Your task to perform on an android device: Open network settings Image 0: 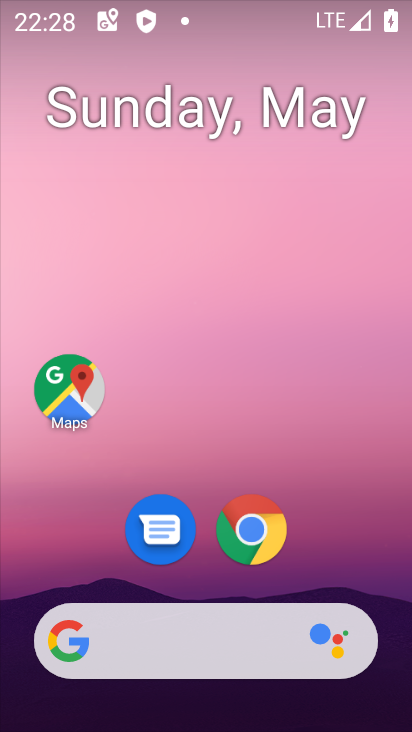
Step 0: drag from (341, 552) to (282, 161)
Your task to perform on an android device: Open network settings Image 1: 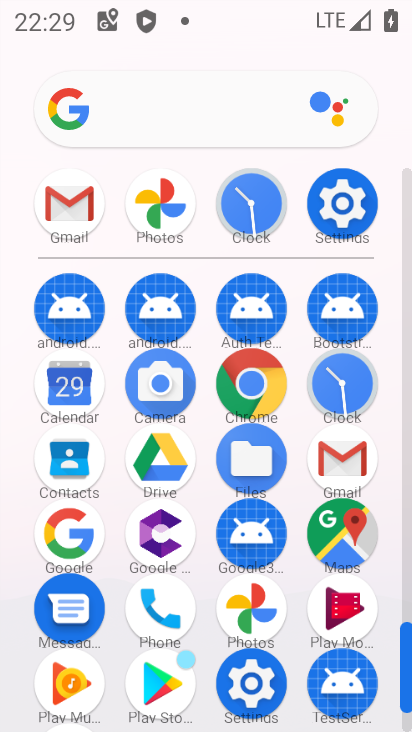
Step 1: click (355, 210)
Your task to perform on an android device: Open network settings Image 2: 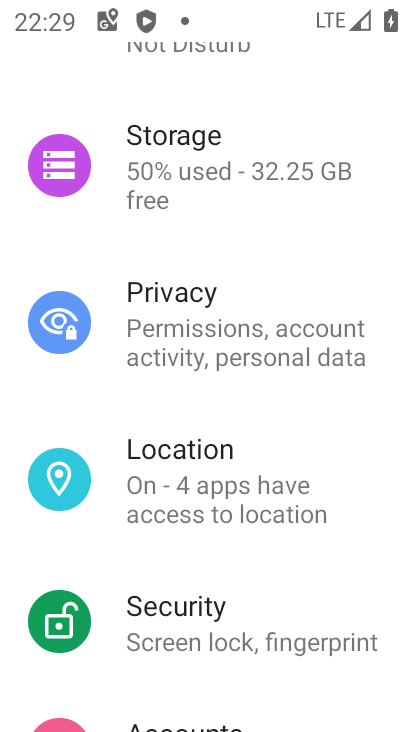
Step 2: task complete